Your task to perform on an android device: turn on the 12-hour format for clock Image 0: 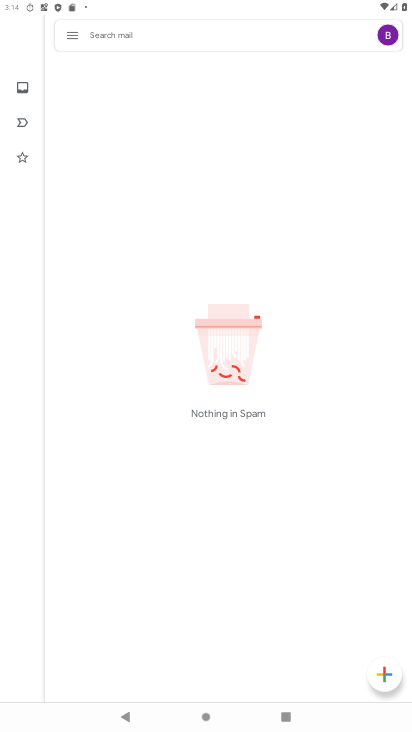
Step 0: press home button
Your task to perform on an android device: turn on the 12-hour format for clock Image 1: 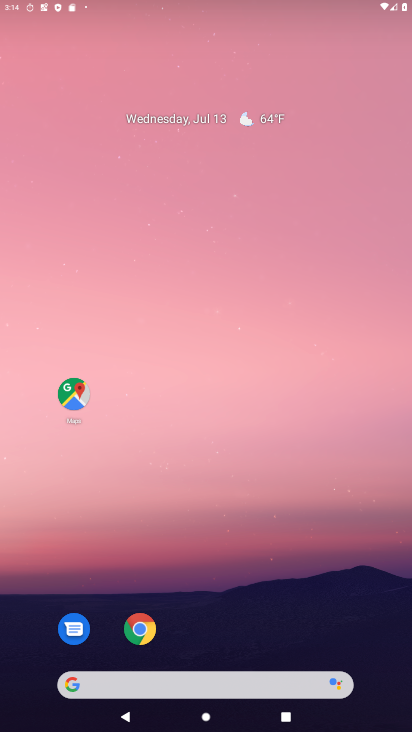
Step 1: drag from (250, 686) to (316, 71)
Your task to perform on an android device: turn on the 12-hour format for clock Image 2: 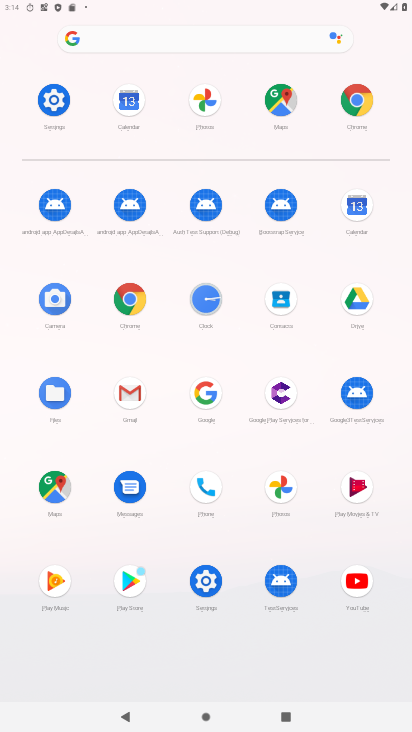
Step 2: click (201, 292)
Your task to perform on an android device: turn on the 12-hour format for clock Image 3: 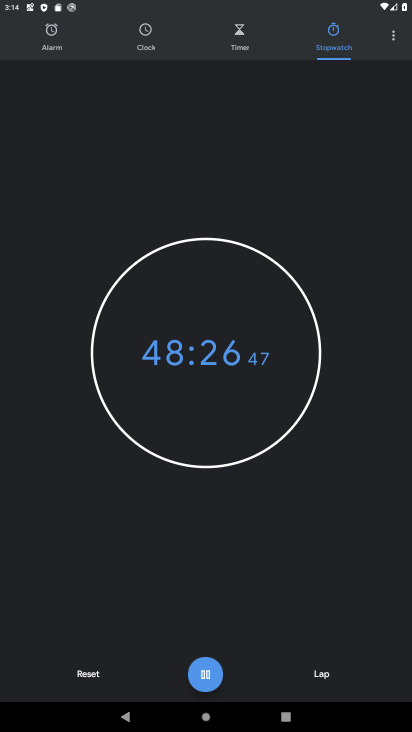
Step 3: click (402, 38)
Your task to perform on an android device: turn on the 12-hour format for clock Image 4: 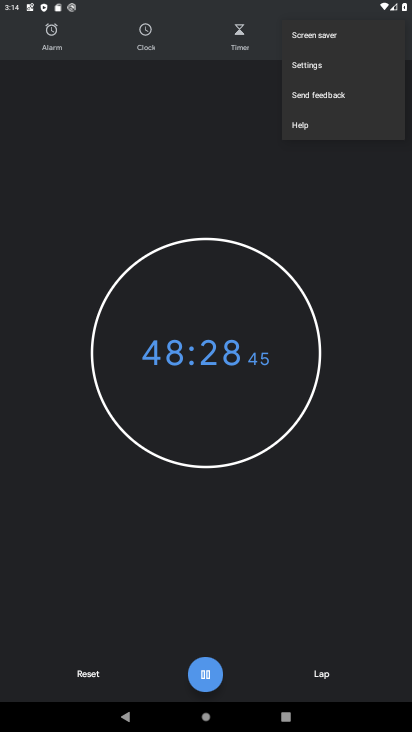
Step 4: click (351, 68)
Your task to perform on an android device: turn on the 12-hour format for clock Image 5: 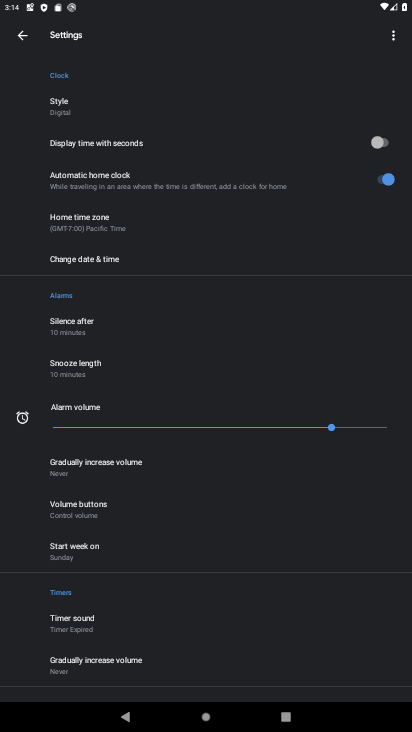
Step 5: click (113, 258)
Your task to perform on an android device: turn on the 12-hour format for clock Image 6: 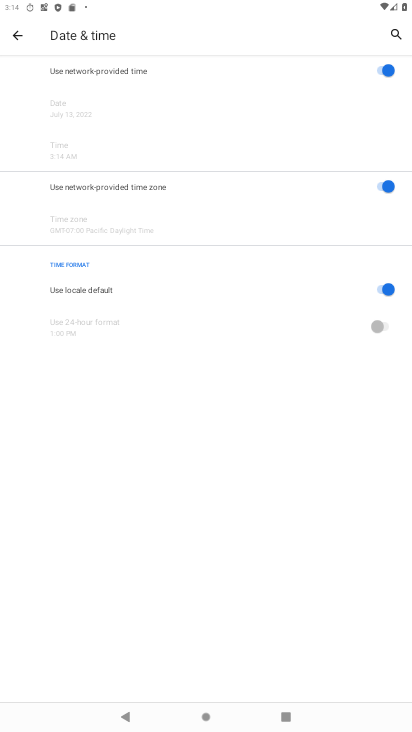
Step 6: click (379, 289)
Your task to perform on an android device: turn on the 12-hour format for clock Image 7: 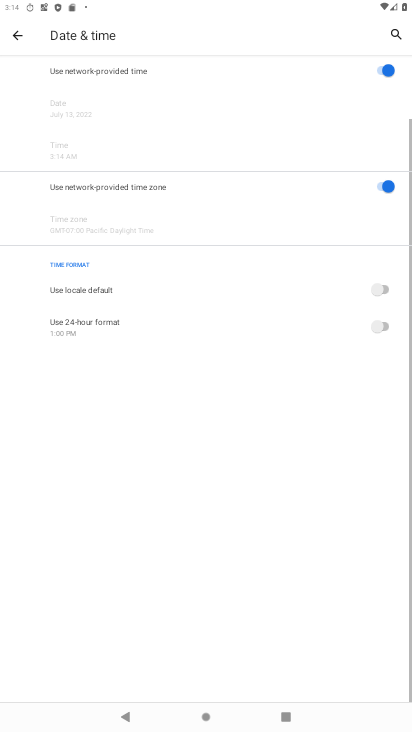
Step 7: task complete